Your task to perform on an android device: Go to privacy settings Image 0: 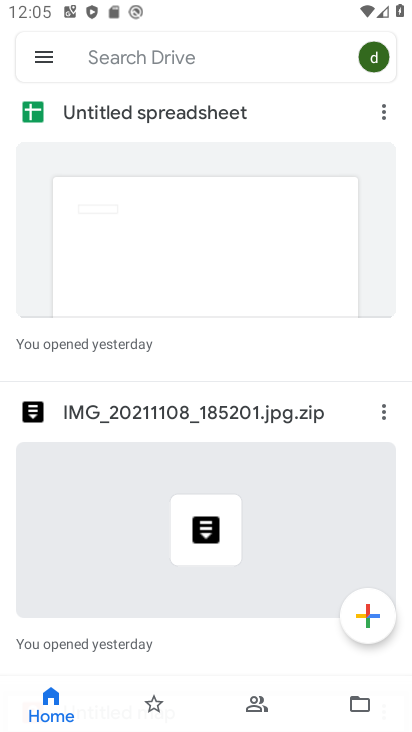
Step 0: press back button
Your task to perform on an android device: Go to privacy settings Image 1: 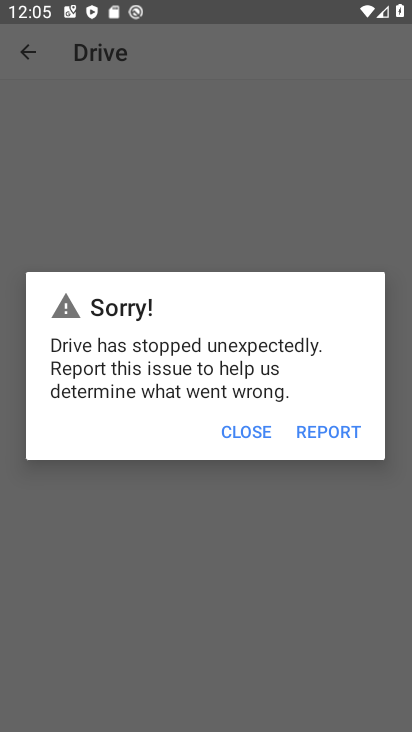
Step 1: press home button
Your task to perform on an android device: Go to privacy settings Image 2: 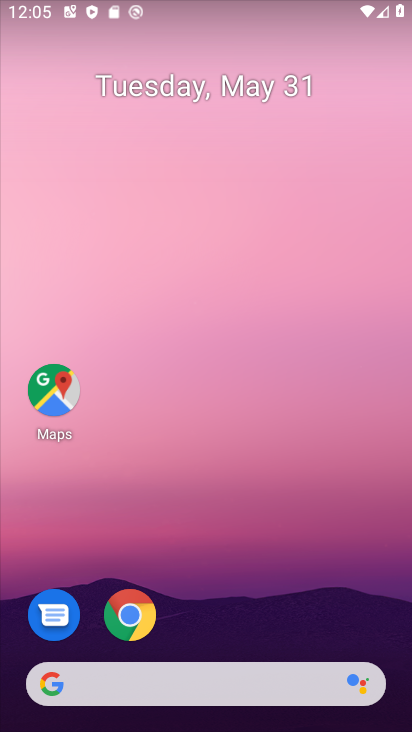
Step 2: drag from (372, 607) to (394, 164)
Your task to perform on an android device: Go to privacy settings Image 3: 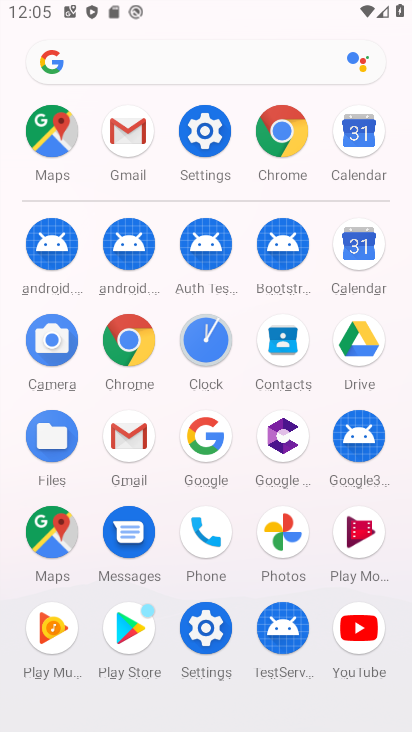
Step 3: click (199, 157)
Your task to perform on an android device: Go to privacy settings Image 4: 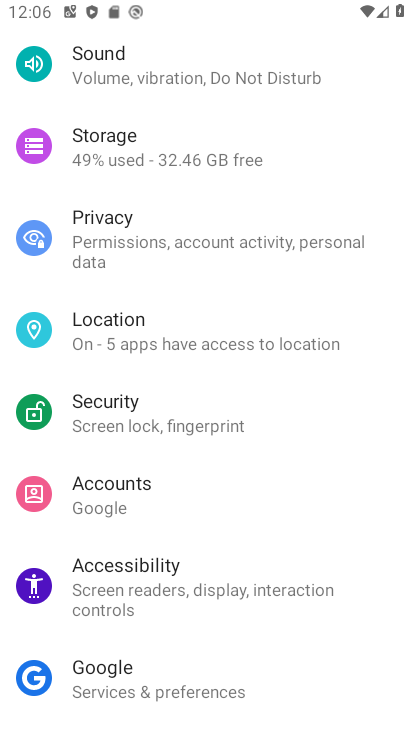
Step 4: drag from (362, 168) to (363, 279)
Your task to perform on an android device: Go to privacy settings Image 5: 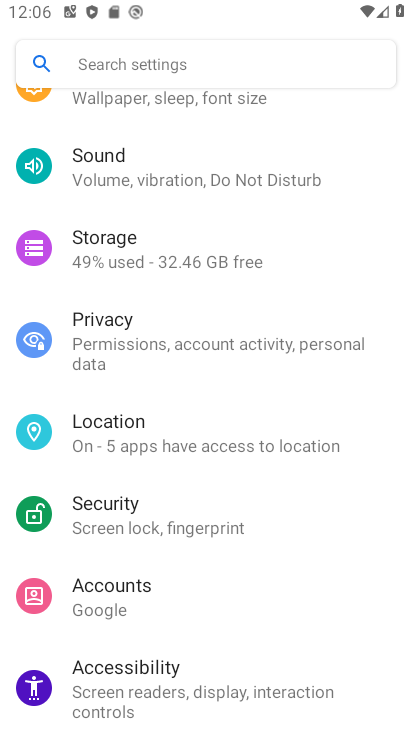
Step 5: drag from (355, 148) to (356, 256)
Your task to perform on an android device: Go to privacy settings Image 6: 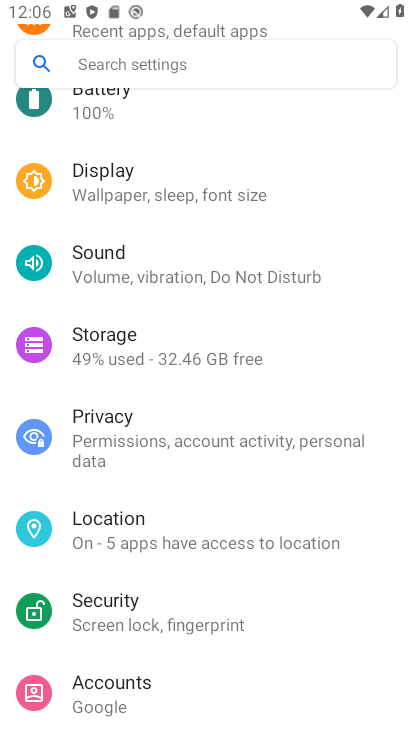
Step 6: drag from (361, 192) to (362, 304)
Your task to perform on an android device: Go to privacy settings Image 7: 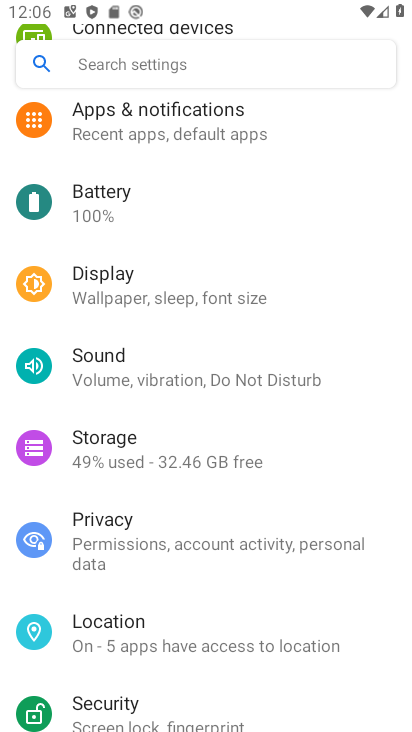
Step 7: drag from (353, 141) to (353, 287)
Your task to perform on an android device: Go to privacy settings Image 8: 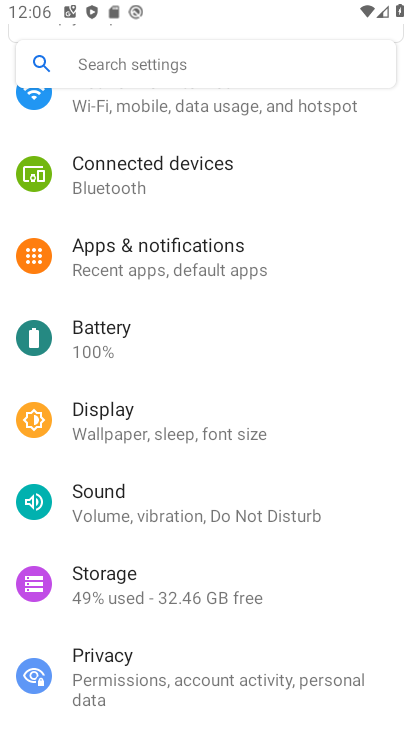
Step 8: drag from (354, 172) to (356, 327)
Your task to perform on an android device: Go to privacy settings Image 9: 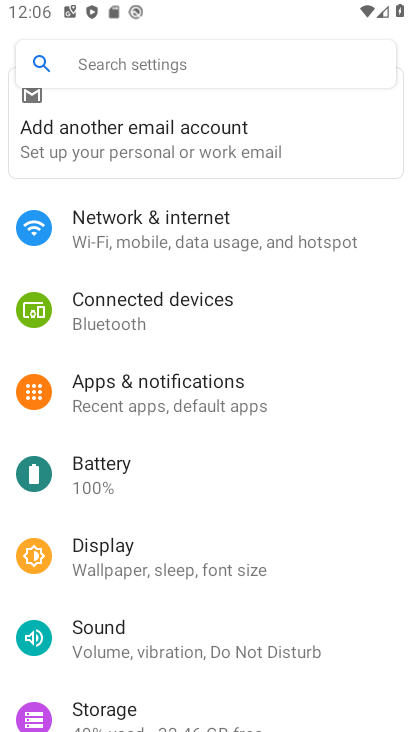
Step 9: drag from (350, 363) to (353, 255)
Your task to perform on an android device: Go to privacy settings Image 10: 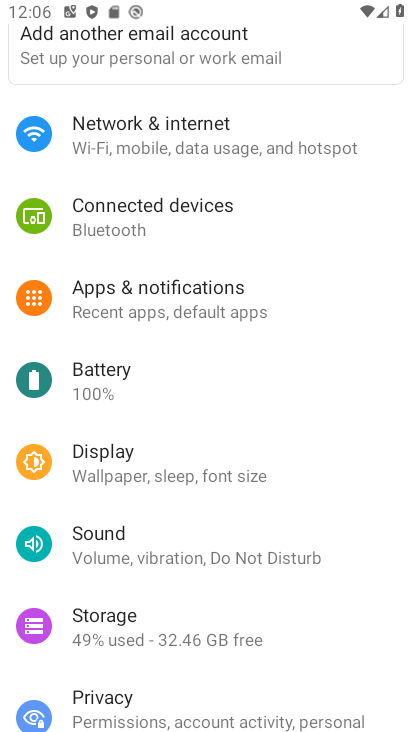
Step 10: drag from (345, 381) to (350, 280)
Your task to perform on an android device: Go to privacy settings Image 11: 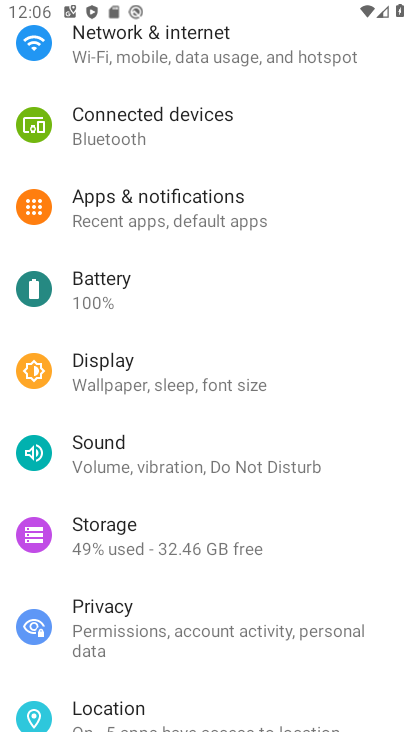
Step 11: drag from (354, 393) to (355, 303)
Your task to perform on an android device: Go to privacy settings Image 12: 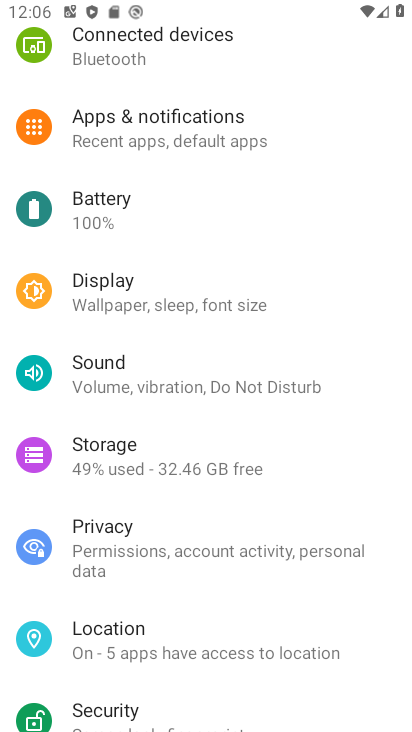
Step 12: drag from (359, 399) to (361, 304)
Your task to perform on an android device: Go to privacy settings Image 13: 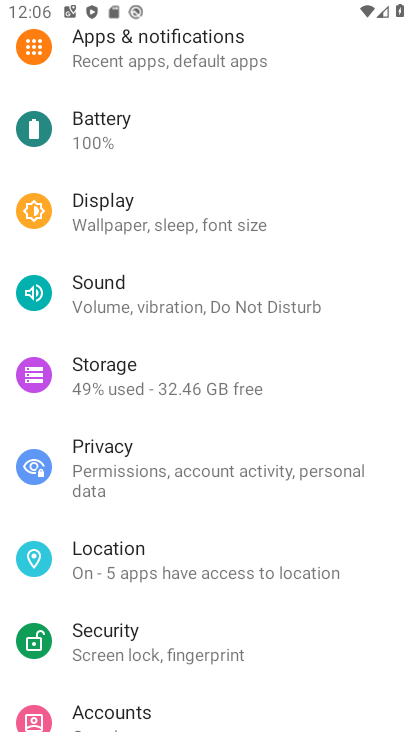
Step 13: drag from (363, 394) to (362, 267)
Your task to perform on an android device: Go to privacy settings Image 14: 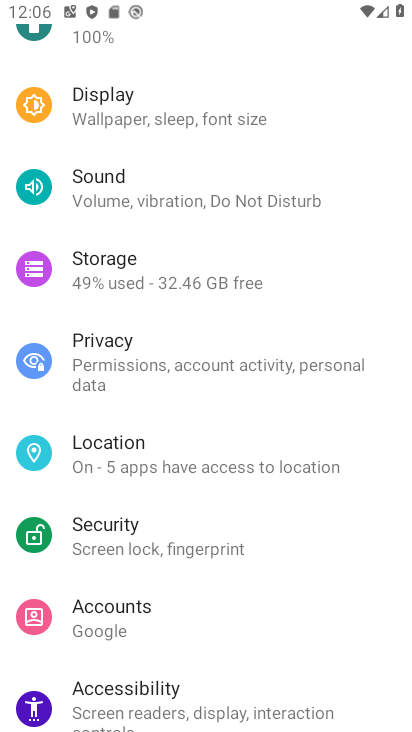
Step 14: click (308, 370)
Your task to perform on an android device: Go to privacy settings Image 15: 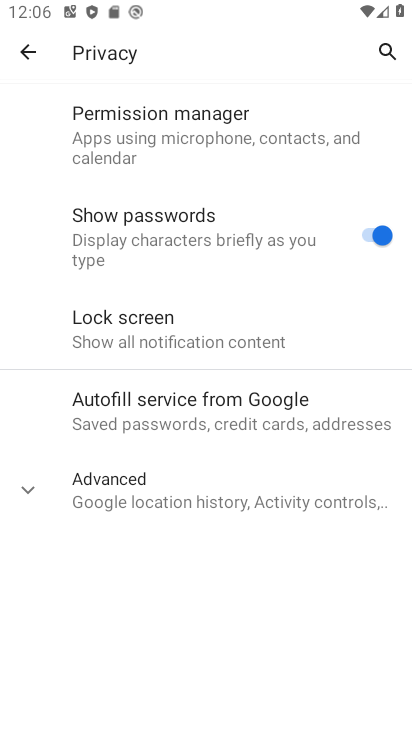
Step 15: task complete